Your task to perform on an android device: Turn off the flashlight Image 0: 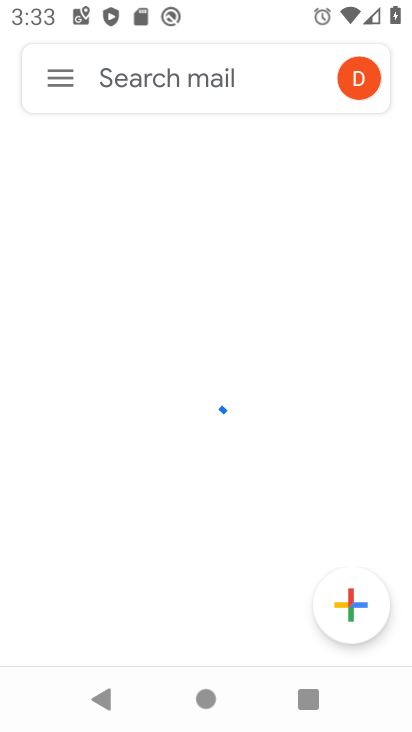
Step 0: press home button
Your task to perform on an android device: Turn off the flashlight Image 1: 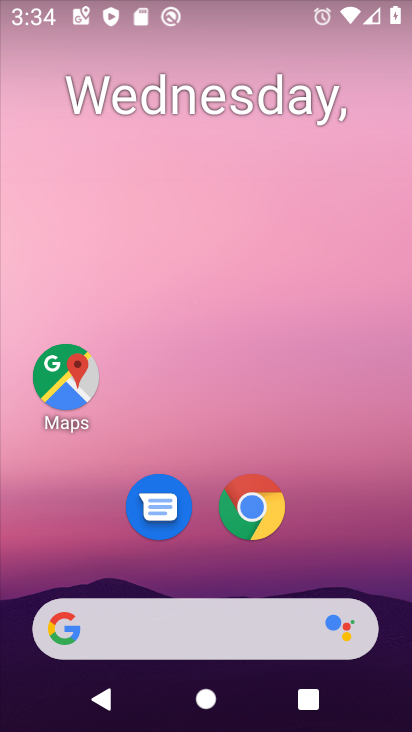
Step 1: drag from (332, 484) to (288, 256)
Your task to perform on an android device: Turn off the flashlight Image 2: 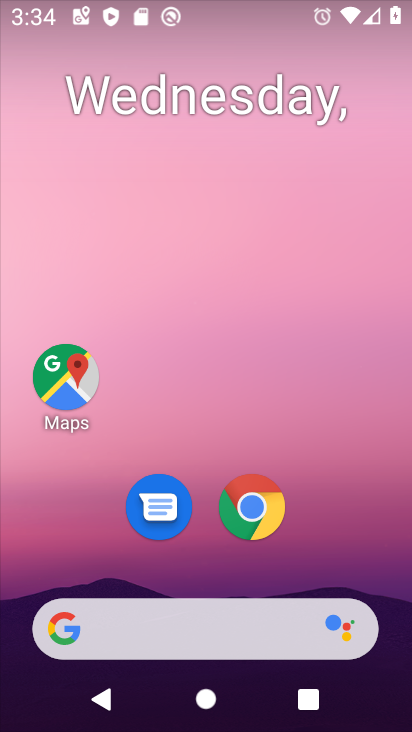
Step 2: drag from (303, 542) to (297, 216)
Your task to perform on an android device: Turn off the flashlight Image 3: 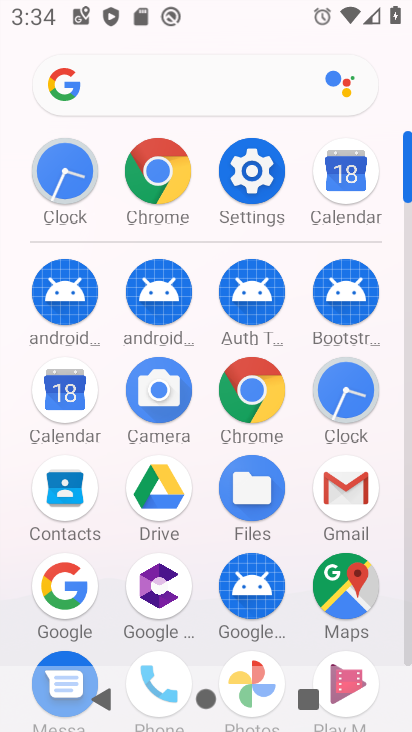
Step 3: click (251, 177)
Your task to perform on an android device: Turn off the flashlight Image 4: 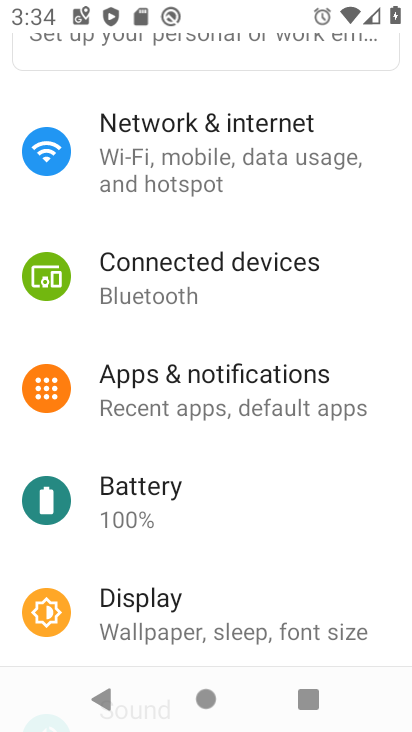
Step 4: drag from (264, 508) to (216, 232)
Your task to perform on an android device: Turn off the flashlight Image 5: 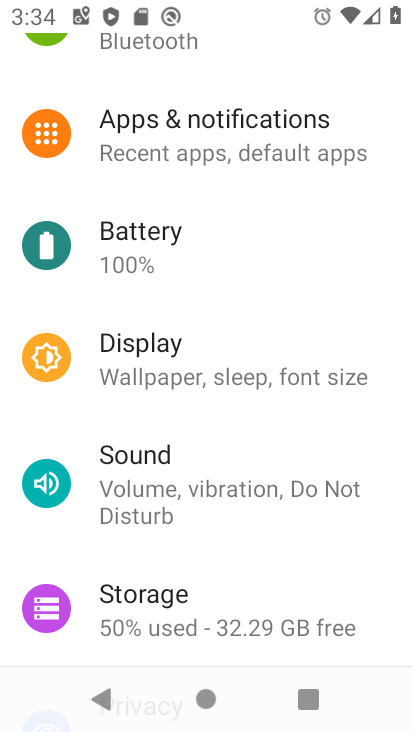
Step 5: click (215, 345)
Your task to perform on an android device: Turn off the flashlight Image 6: 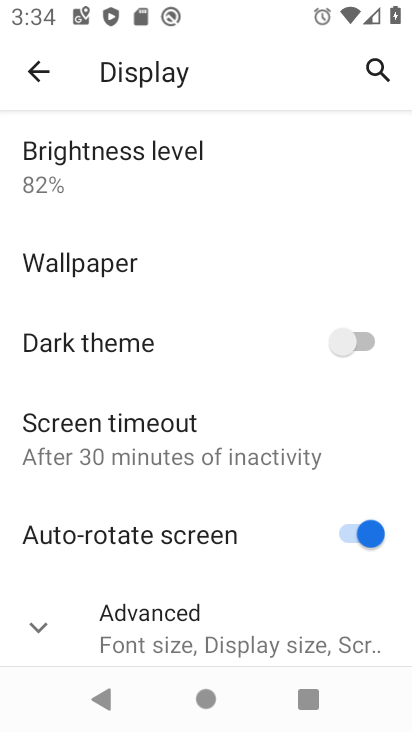
Step 6: drag from (234, 521) to (193, 307)
Your task to perform on an android device: Turn off the flashlight Image 7: 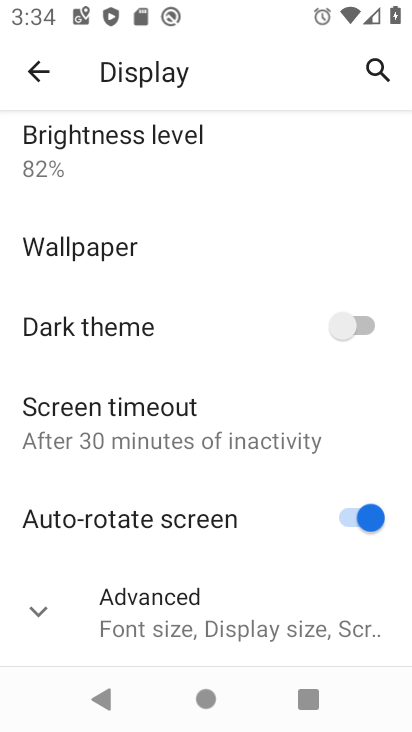
Step 7: click (236, 621)
Your task to perform on an android device: Turn off the flashlight Image 8: 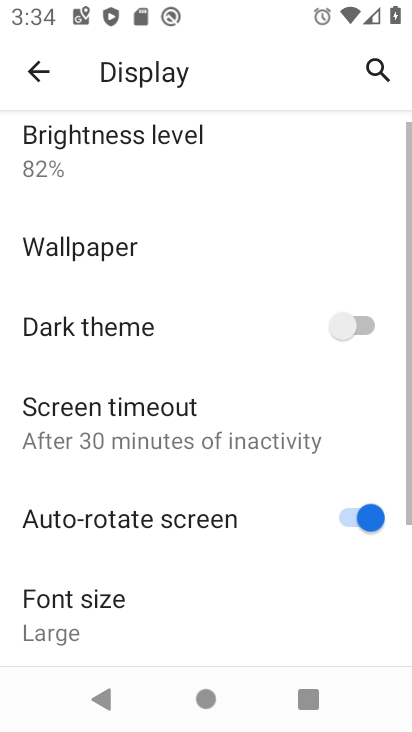
Step 8: task complete